Your task to perform on an android device: When is my next appointment? Image 0: 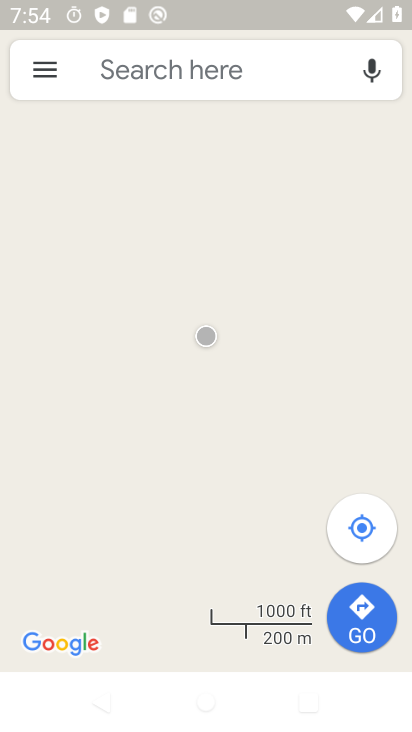
Step 0: press home button
Your task to perform on an android device: When is my next appointment? Image 1: 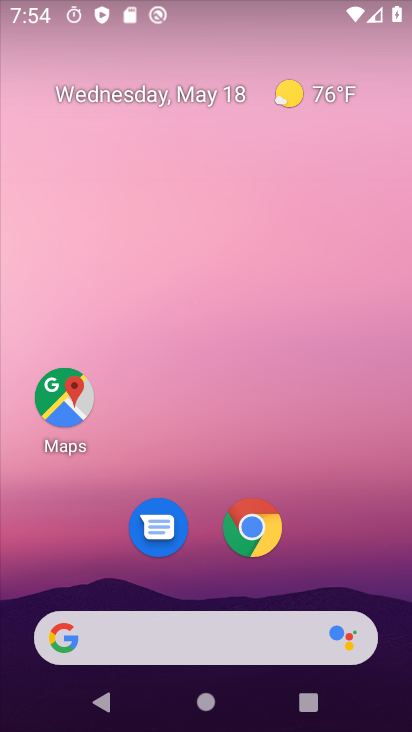
Step 1: drag from (342, 482) to (272, 4)
Your task to perform on an android device: When is my next appointment? Image 2: 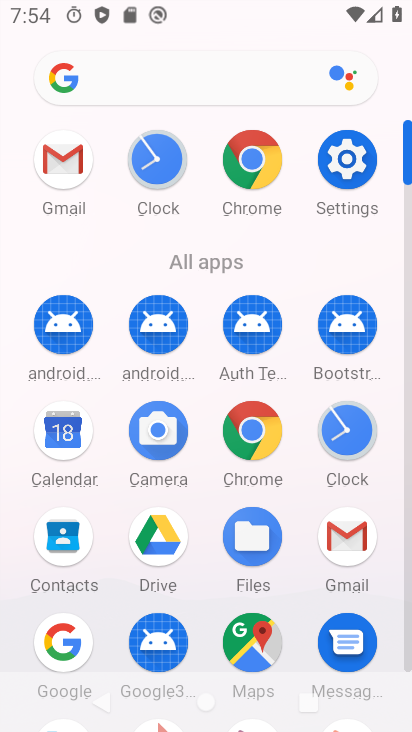
Step 2: click (49, 437)
Your task to perform on an android device: When is my next appointment? Image 3: 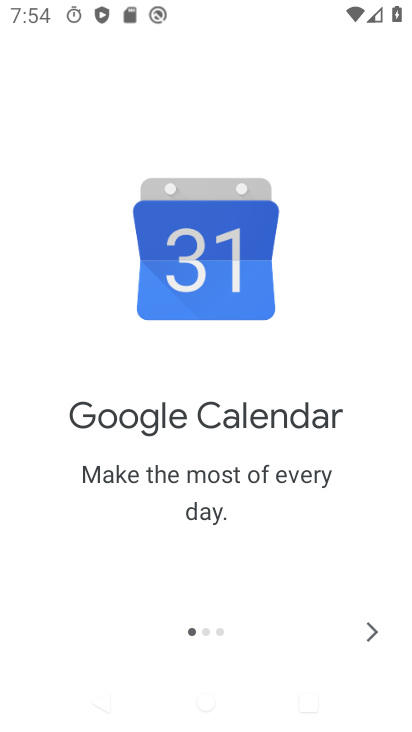
Step 3: click (375, 630)
Your task to perform on an android device: When is my next appointment? Image 4: 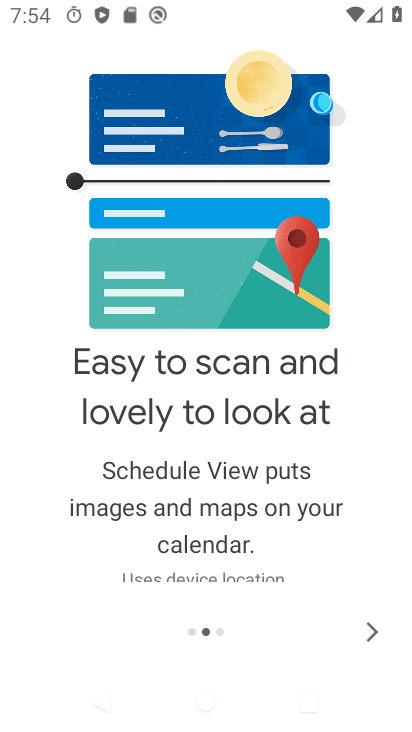
Step 4: click (375, 629)
Your task to perform on an android device: When is my next appointment? Image 5: 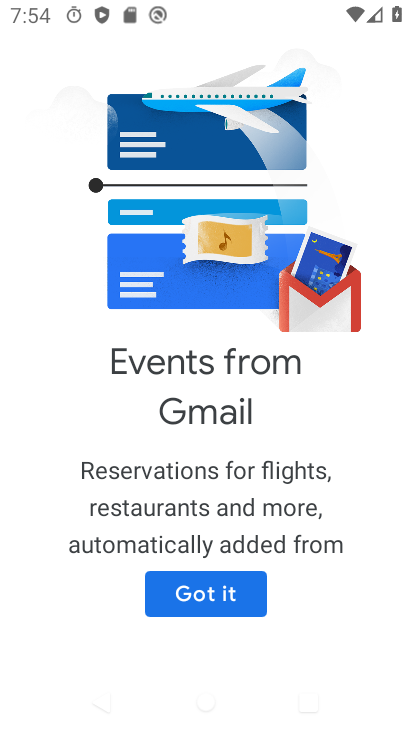
Step 5: click (226, 574)
Your task to perform on an android device: When is my next appointment? Image 6: 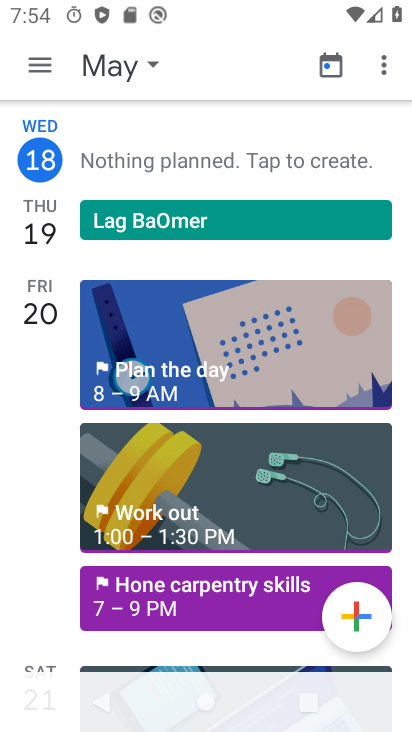
Step 6: click (30, 60)
Your task to perform on an android device: When is my next appointment? Image 7: 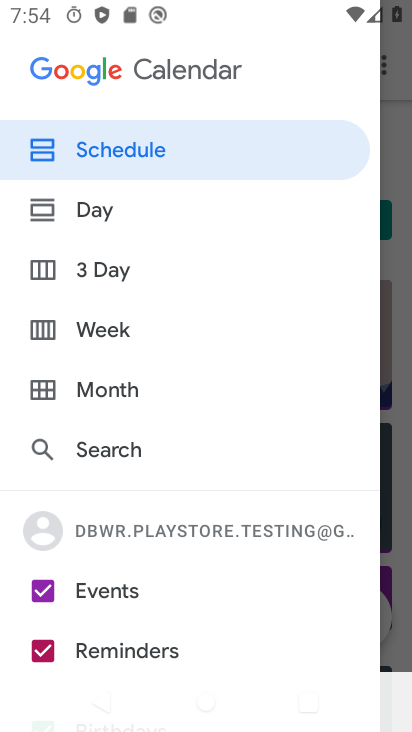
Step 7: drag from (236, 644) to (265, 99)
Your task to perform on an android device: When is my next appointment? Image 8: 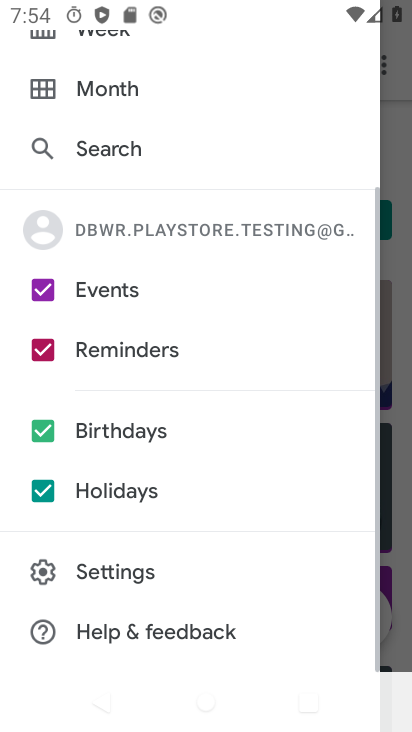
Step 8: click (40, 497)
Your task to perform on an android device: When is my next appointment? Image 9: 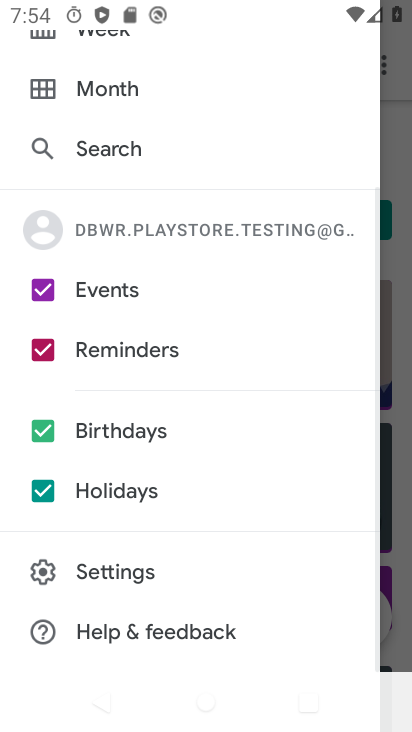
Step 9: click (45, 428)
Your task to perform on an android device: When is my next appointment? Image 10: 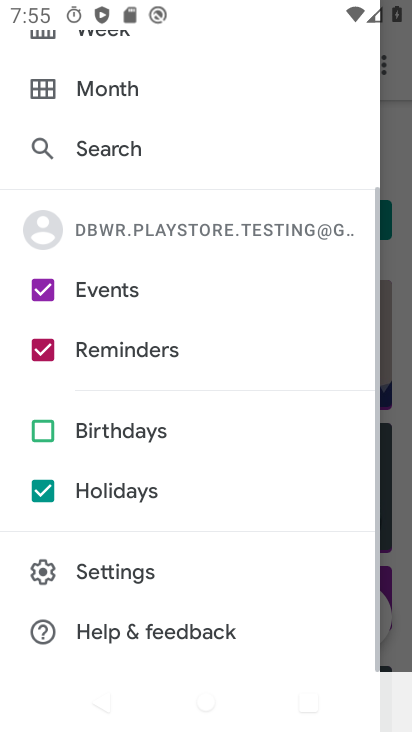
Step 10: click (44, 353)
Your task to perform on an android device: When is my next appointment? Image 11: 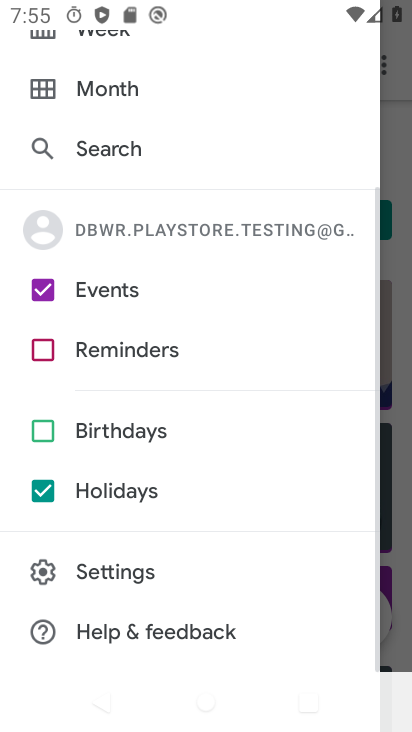
Step 11: click (34, 497)
Your task to perform on an android device: When is my next appointment? Image 12: 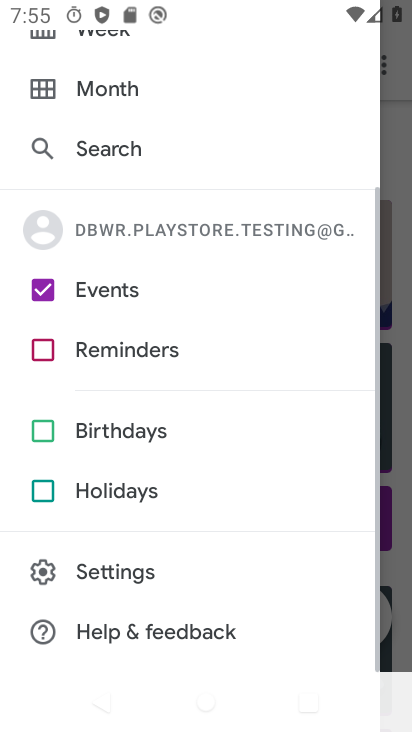
Step 12: drag from (263, 90) to (309, 670)
Your task to perform on an android device: When is my next appointment? Image 13: 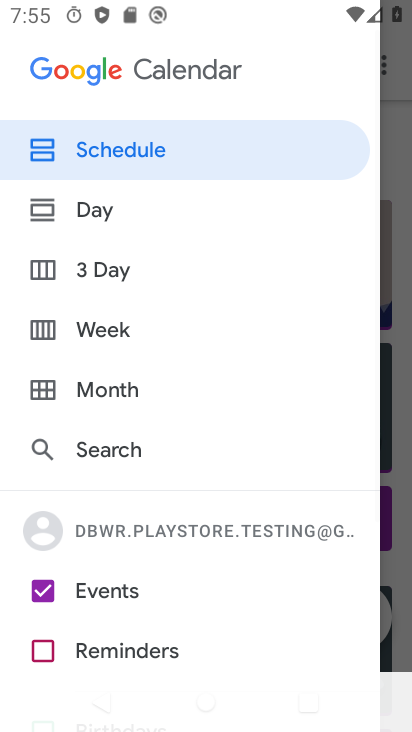
Step 13: click (116, 146)
Your task to perform on an android device: When is my next appointment? Image 14: 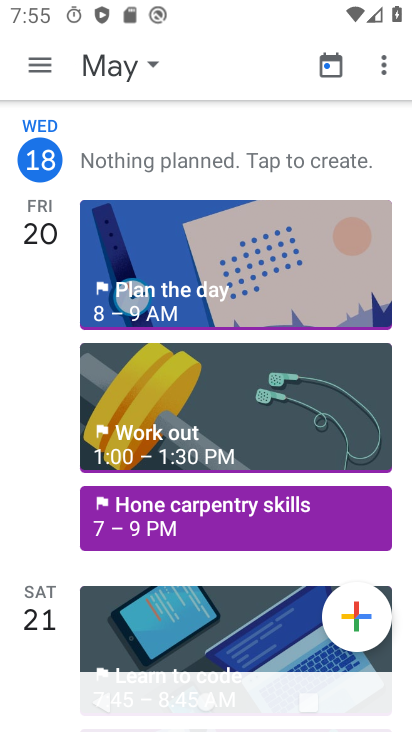
Step 14: task complete